Your task to perform on an android device: choose inbox layout in the gmail app Image 0: 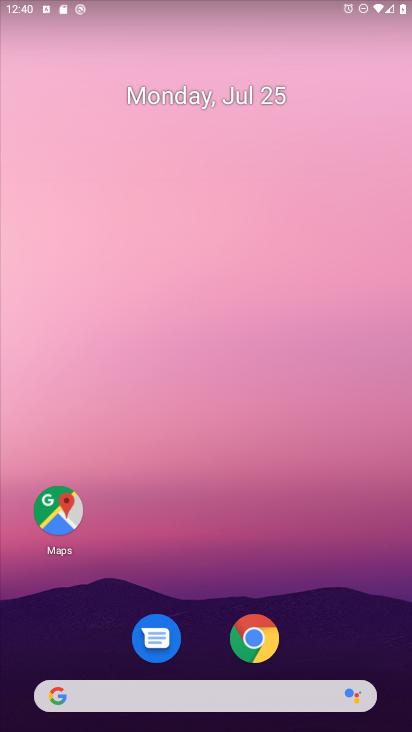
Step 0: drag from (202, 230) to (178, 50)
Your task to perform on an android device: choose inbox layout in the gmail app Image 1: 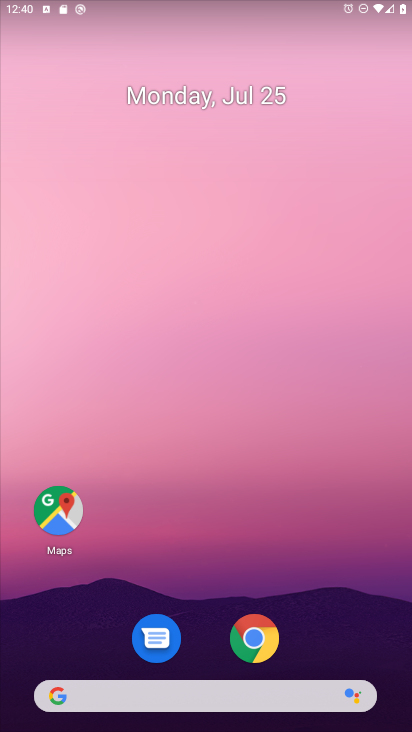
Step 1: drag from (200, 671) to (150, 125)
Your task to perform on an android device: choose inbox layout in the gmail app Image 2: 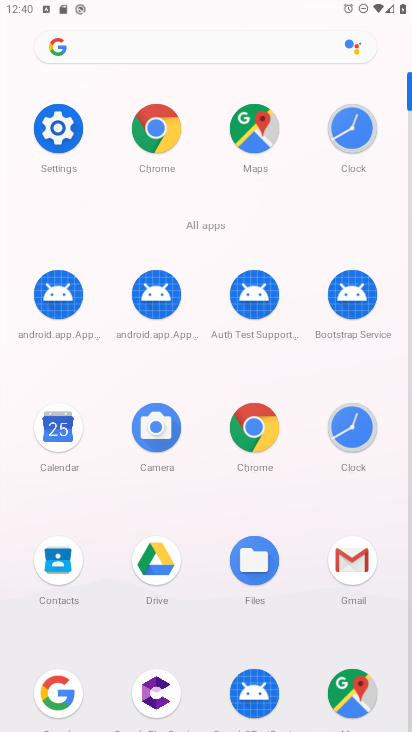
Step 2: click (340, 571)
Your task to perform on an android device: choose inbox layout in the gmail app Image 3: 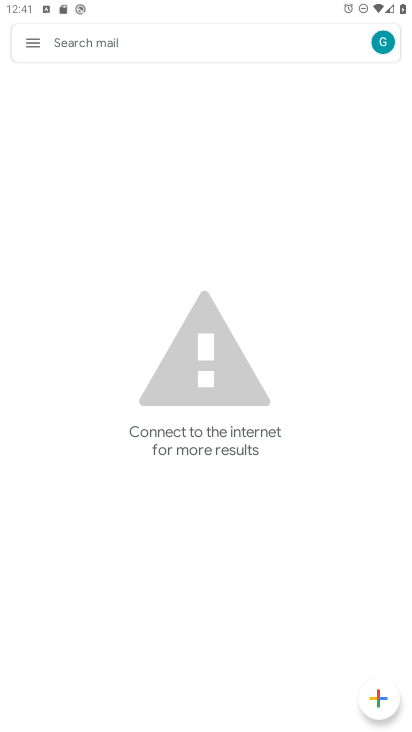
Step 3: click (34, 44)
Your task to perform on an android device: choose inbox layout in the gmail app Image 4: 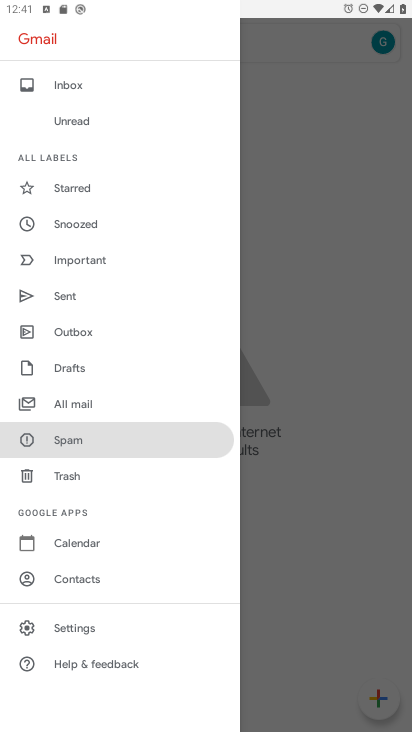
Step 4: click (92, 631)
Your task to perform on an android device: choose inbox layout in the gmail app Image 5: 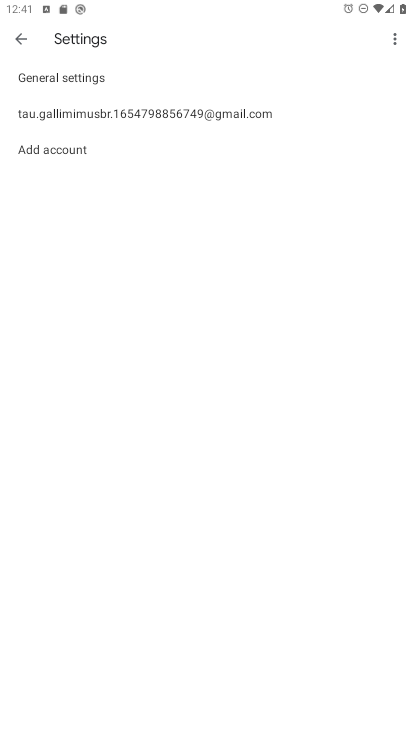
Step 5: click (287, 110)
Your task to perform on an android device: choose inbox layout in the gmail app Image 6: 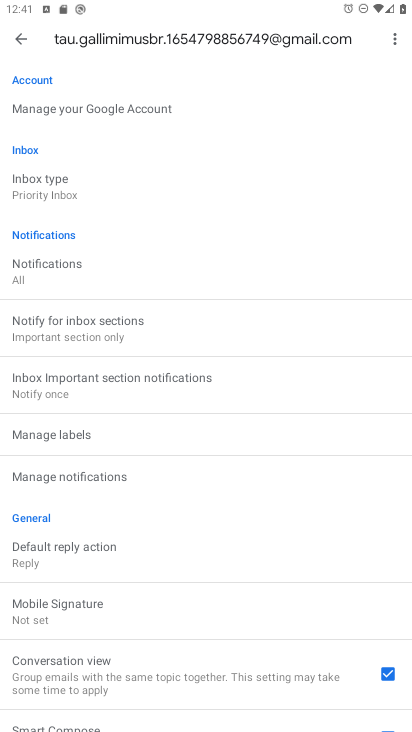
Step 6: click (106, 186)
Your task to perform on an android device: choose inbox layout in the gmail app Image 7: 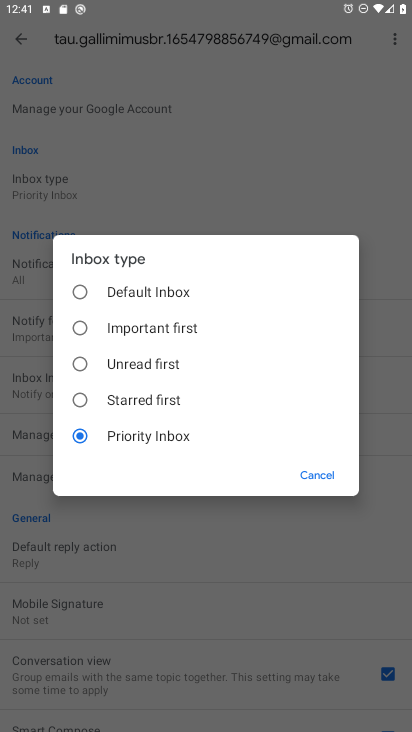
Step 7: click (162, 359)
Your task to perform on an android device: choose inbox layout in the gmail app Image 8: 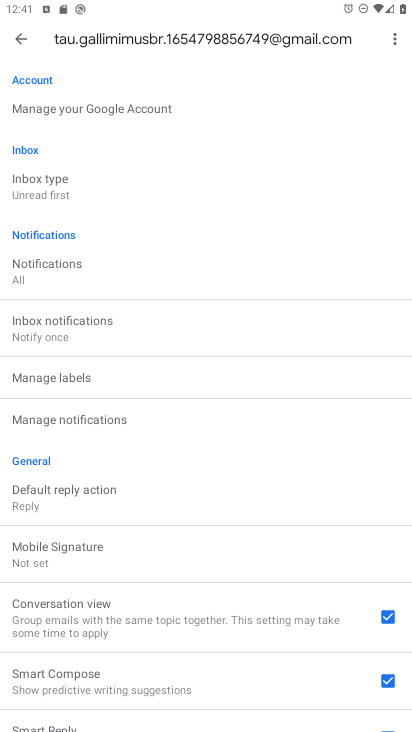
Step 8: task complete